Your task to perform on an android device: turn on javascript in the chrome app Image 0: 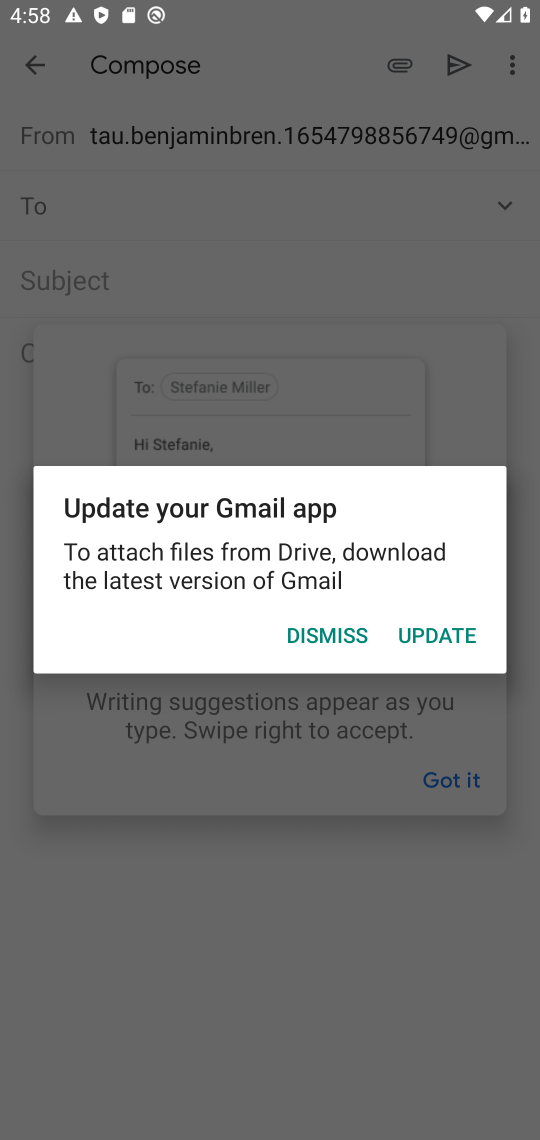
Step 0: press home button
Your task to perform on an android device: turn on javascript in the chrome app Image 1: 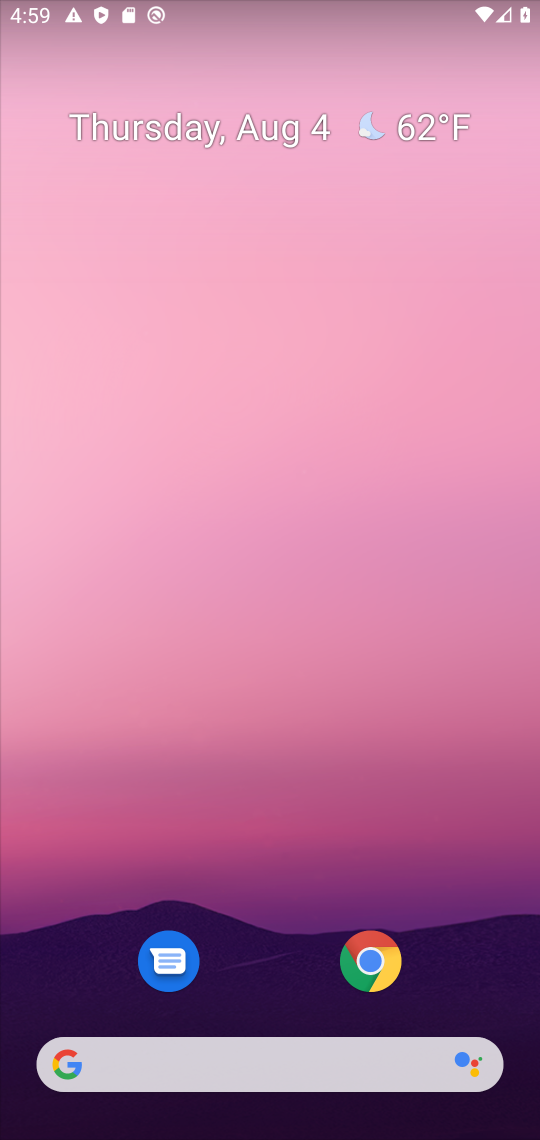
Step 1: click (373, 960)
Your task to perform on an android device: turn on javascript in the chrome app Image 2: 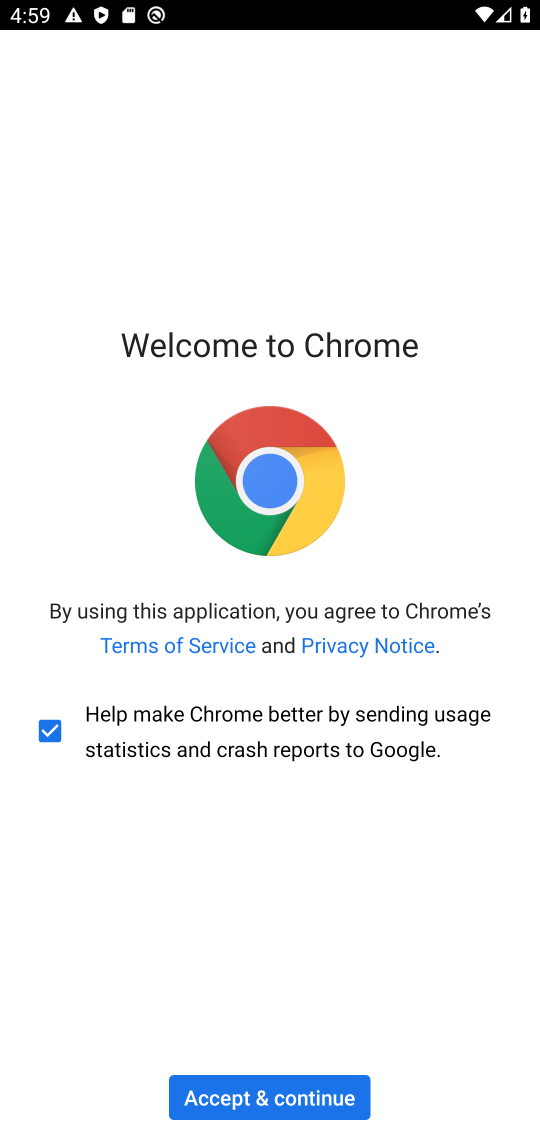
Step 2: click (282, 1105)
Your task to perform on an android device: turn on javascript in the chrome app Image 3: 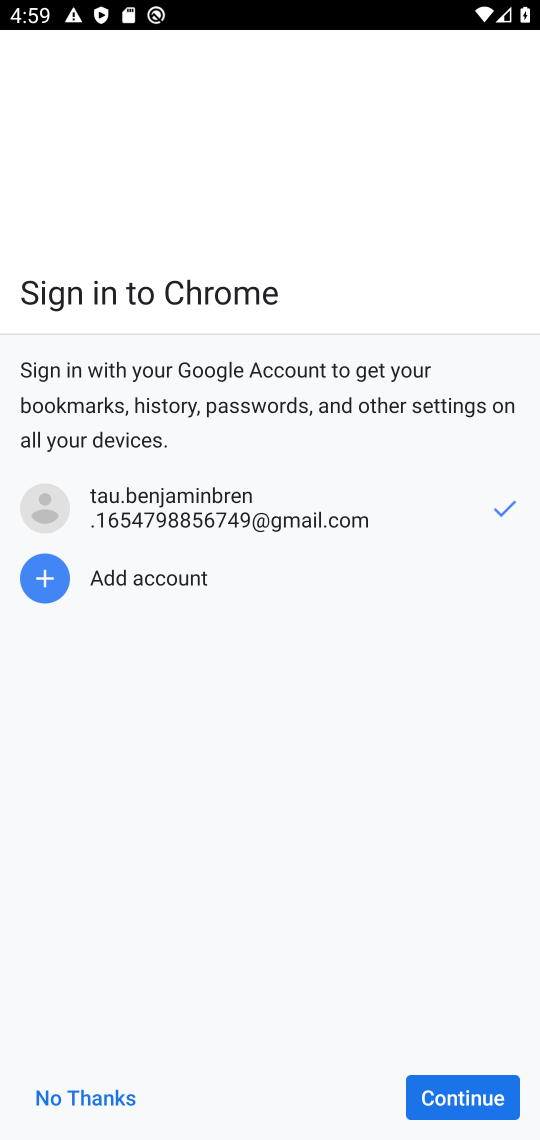
Step 3: click (447, 1103)
Your task to perform on an android device: turn on javascript in the chrome app Image 4: 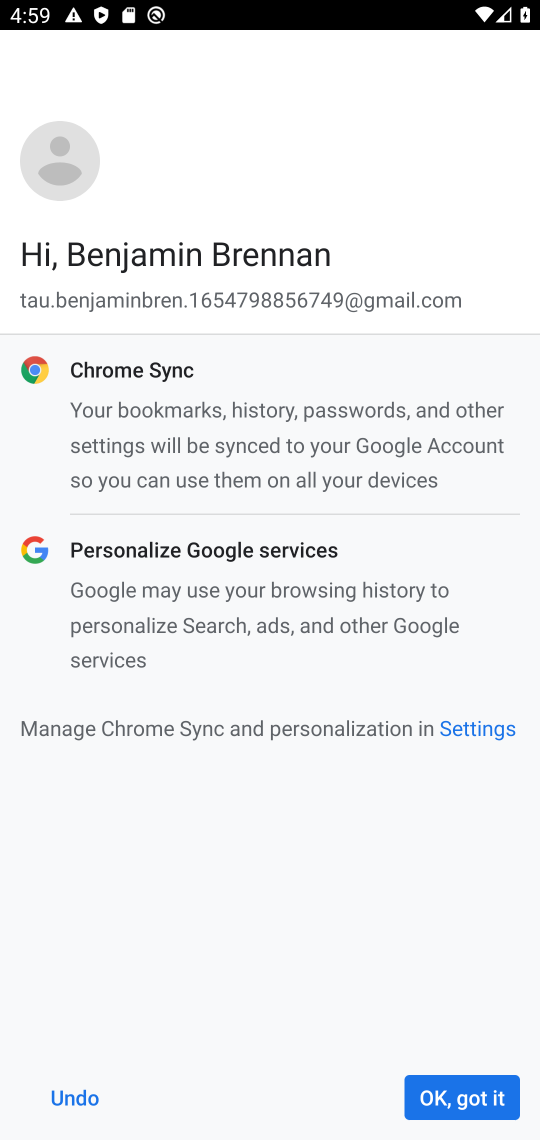
Step 4: click (447, 1103)
Your task to perform on an android device: turn on javascript in the chrome app Image 5: 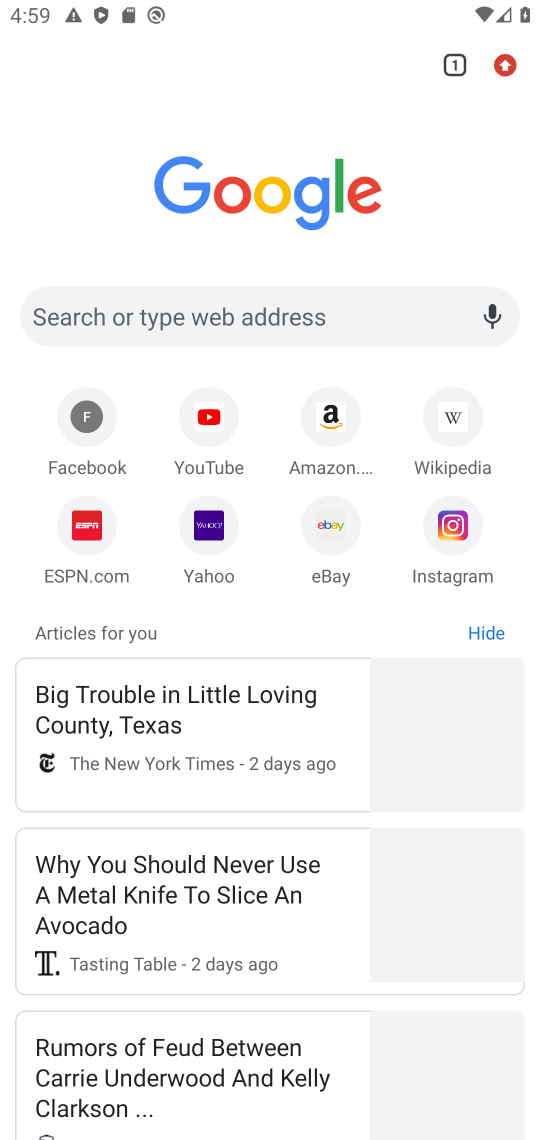
Step 5: click (498, 68)
Your task to perform on an android device: turn on javascript in the chrome app Image 6: 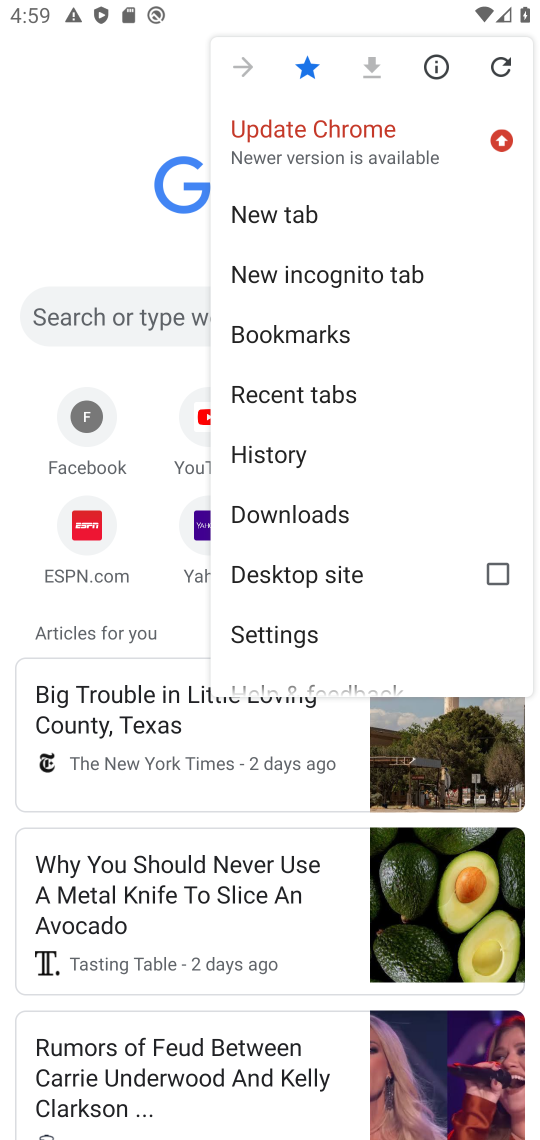
Step 6: click (327, 623)
Your task to perform on an android device: turn on javascript in the chrome app Image 7: 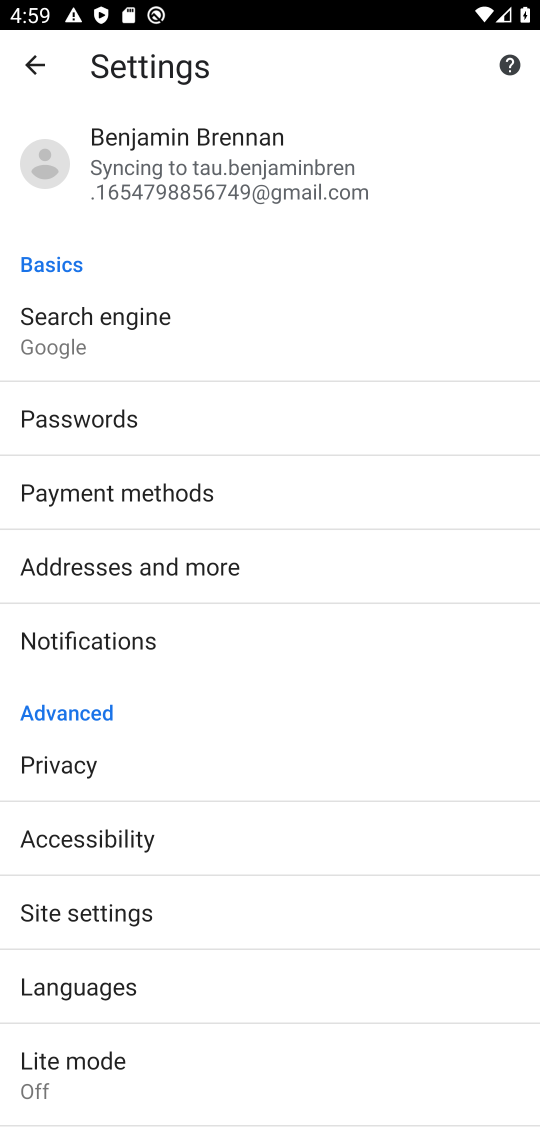
Step 7: click (122, 914)
Your task to perform on an android device: turn on javascript in the chrome app Image 8: 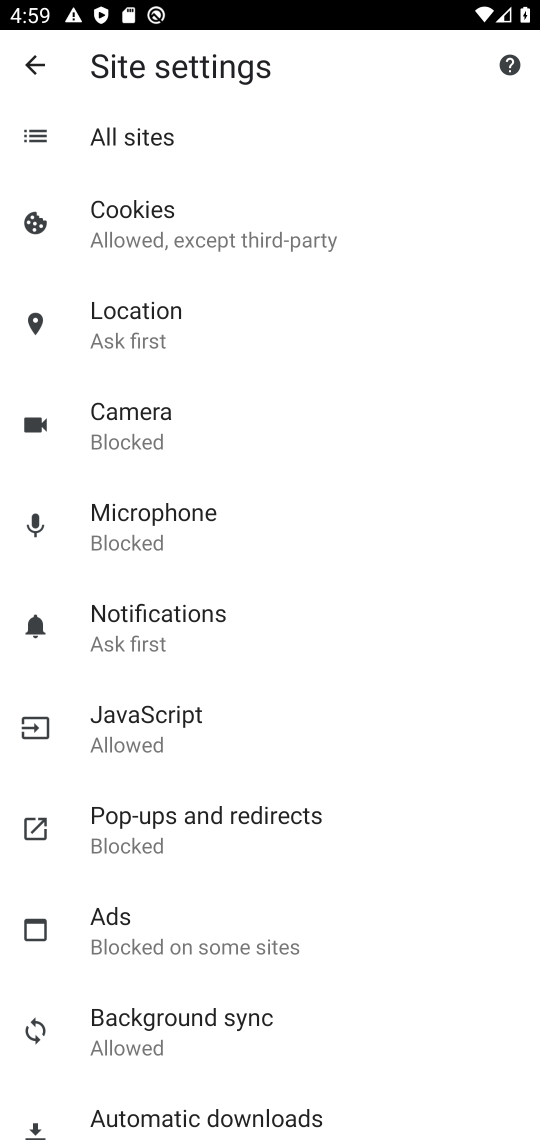
Step 8: click (183, 717)
Your task to perform on an android device: turn on javascript in the chrome app Image 9: 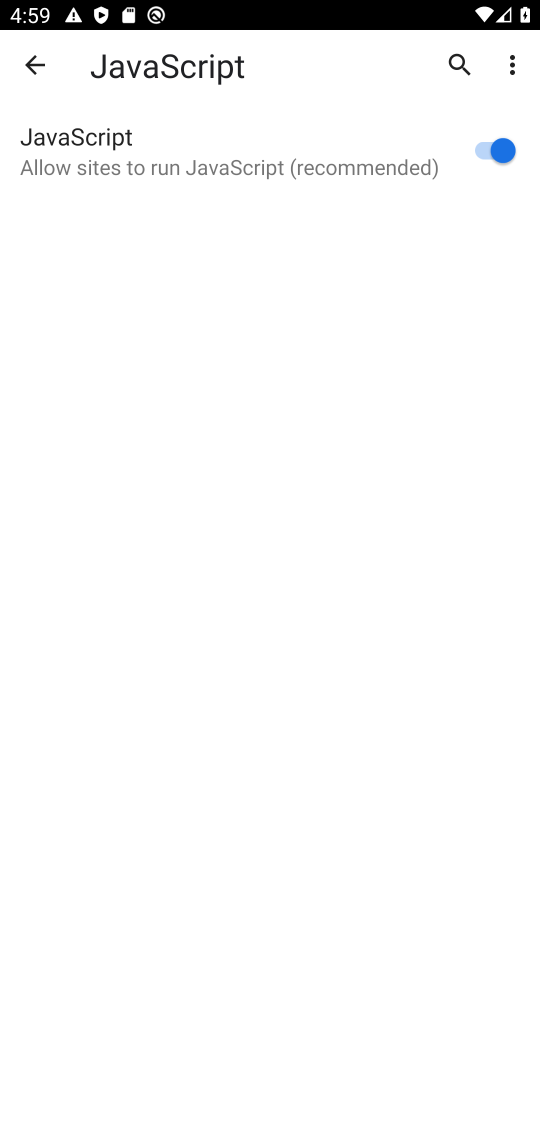
Step 9: task complete